Your task to perform on an android device: Go to ESPN.com Image 0: 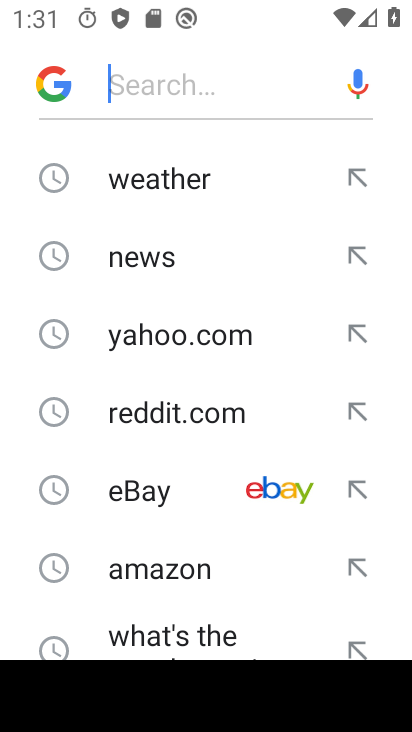
Step 0: press home button
Your task to perform on an android device: Go to ESPN.com Image 1: 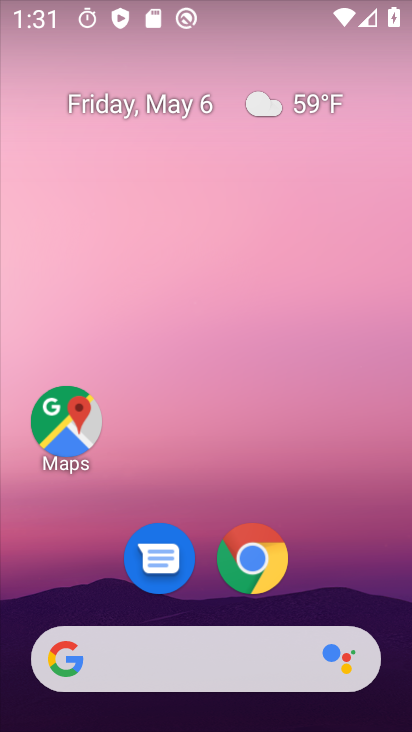
Step 1: click (280, 559)
Your task to perform on an android device: Go to ESPN.com Image 2: 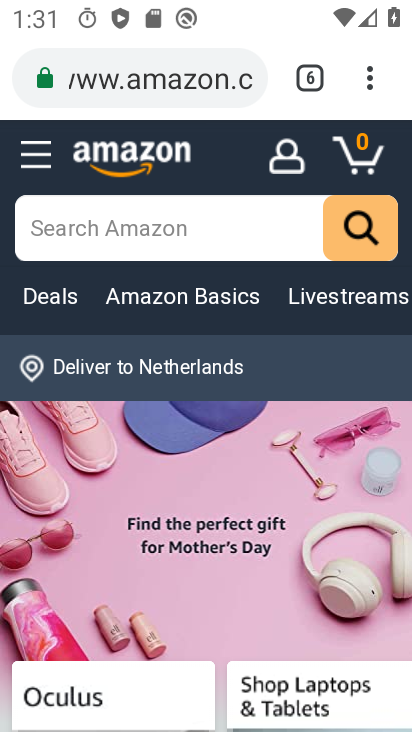
Step 2: drag from (371, 79) to (67, 145)
Your task to perform on an android device: Go to ESPN.com Image 3: 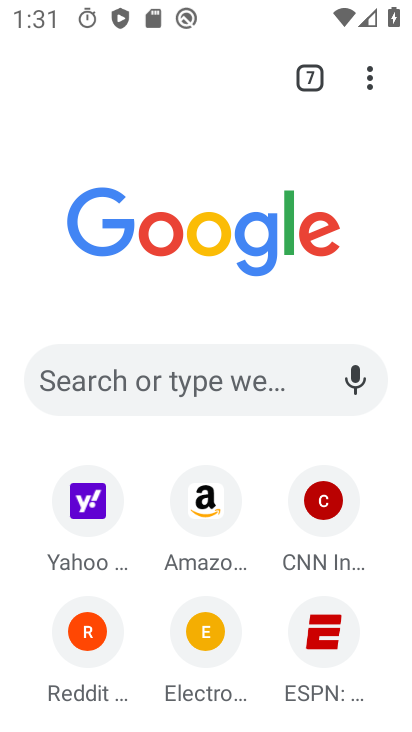
Step 3: click (318, 630)
Your task to perform on an android device: Go to ESPN.com Image 4: 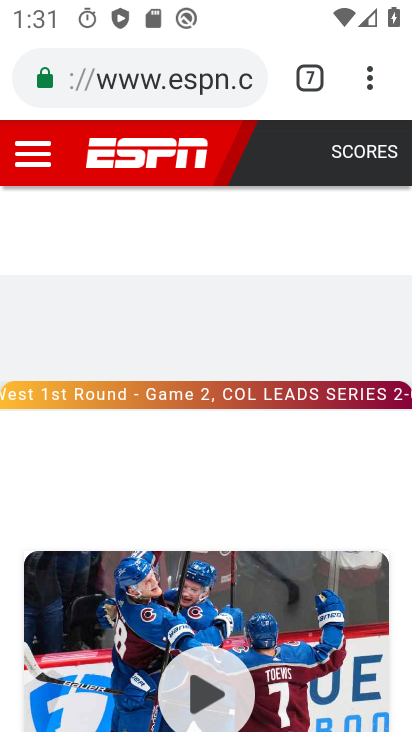
Step 4: task complete